Your task to perform on an android device: Go to Google maps Image 0: 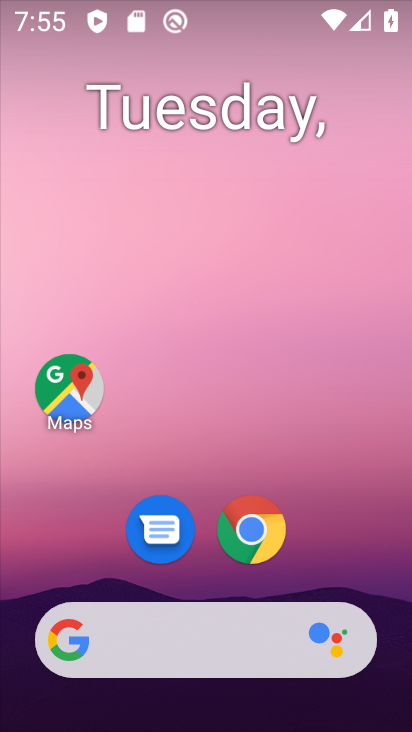
Step 0: drag from (157, 580) to (172, 221)
Your task to perform on an android device: Go to Google maps Image 1: 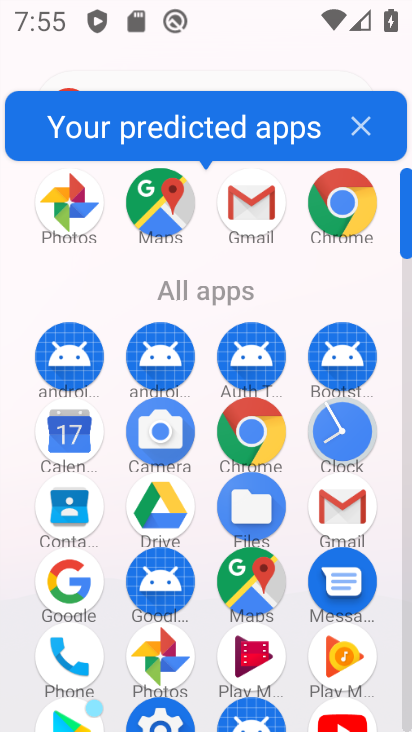
Step 1: click (177, 195)
Your task to perform on an android device: Go to Google maps Image 2: 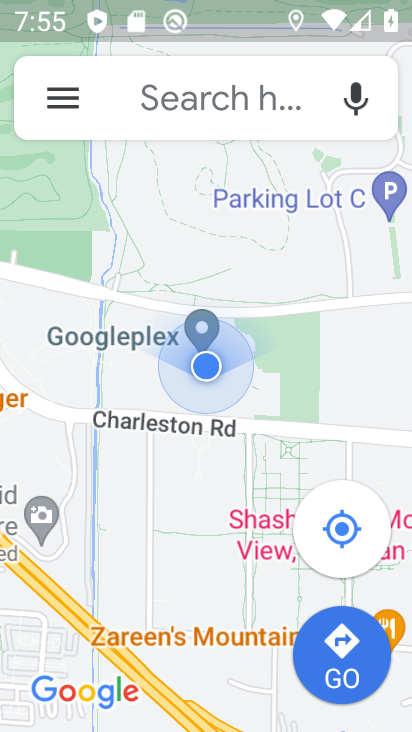
Step 2: task complete